Your task to perform on an android device: toggle javascript in the chrome app Image 0: 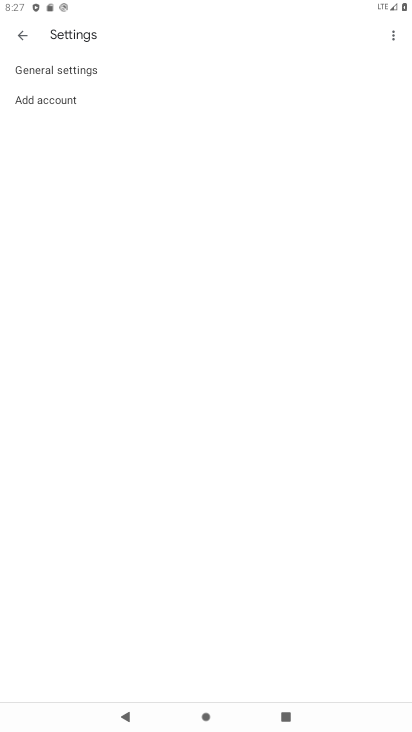
Step 0: press home button
Your task to perform on an android device: toggle javascript in the chrome app Image 1: 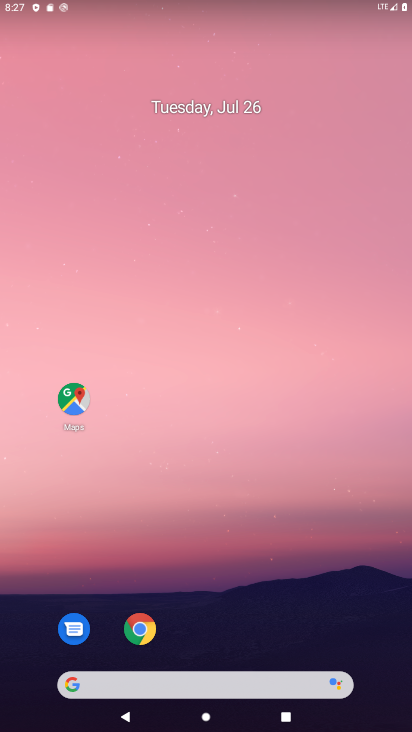
Step 1: drag from (210, 629) to (105, 545)
Your task to perform on an android device: toggle javascript in the chrome app Image 2: 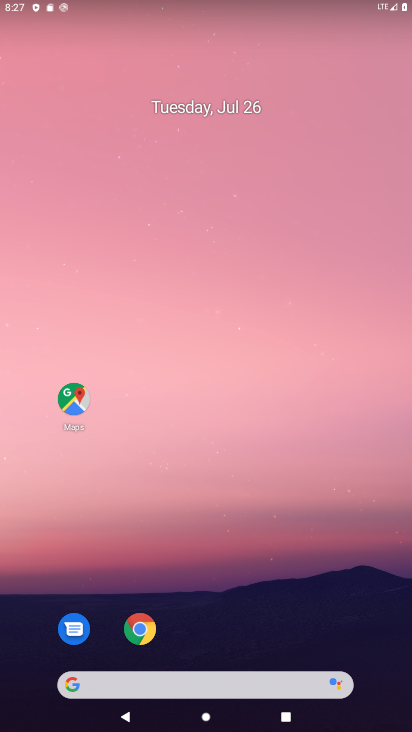
Step 2: click (136, 632)
Your task to perform on an android device: toggle javascript in the chrome app Image 3: 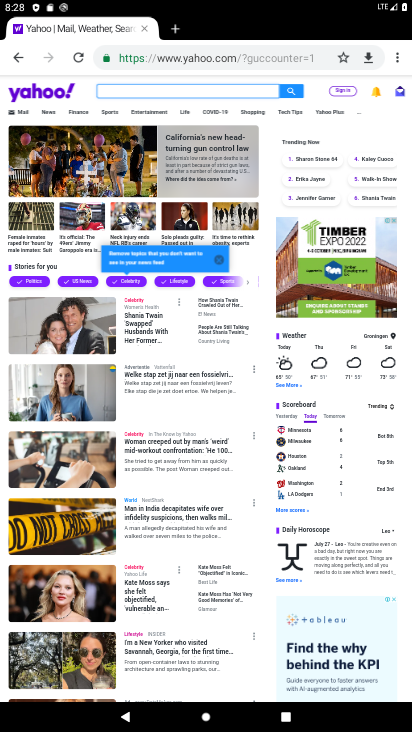
Step 3: drag from (398, 56) to (272, 377)
Your task to perform on an android device: toggle javascript in the chrome app Image 4: 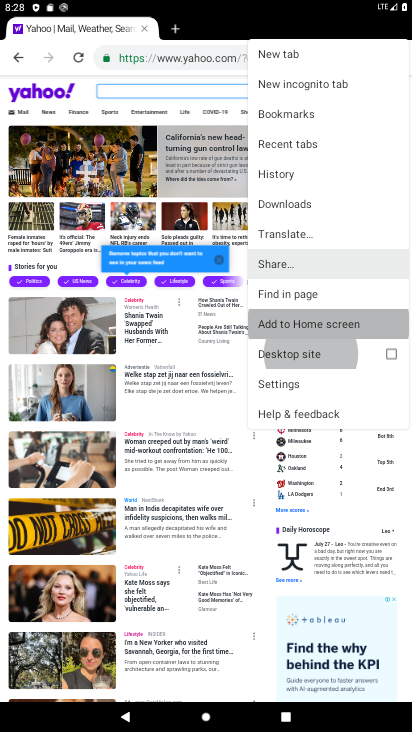
Step 4: click (266, 384)
Your task to perform on an android device: toggle javascript in the chrome app Image 5: 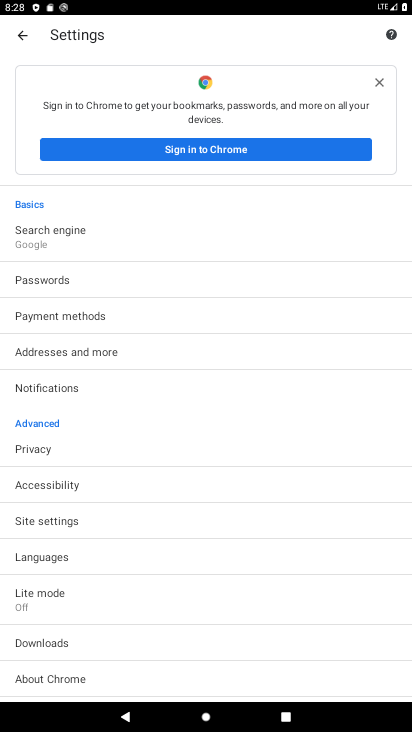
Step 5: click (46, 520)
Your task to perform on an android device: toggle javascript in the chrome app Image 6: 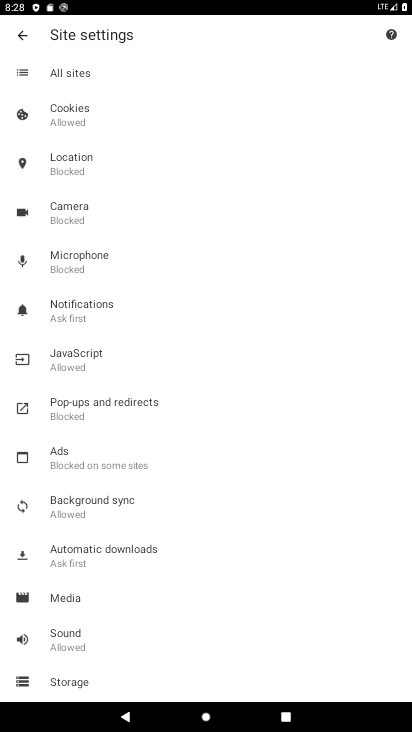
Step 6: click (79, 345)
Your task to perform on an android device: toggle javascript in the chrome app Image 7: 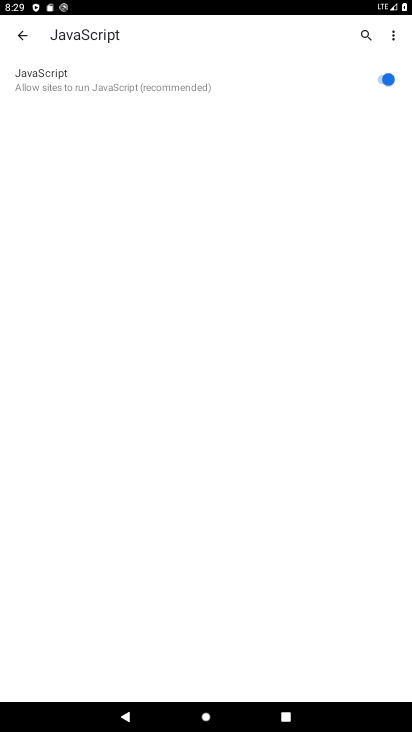
Step 7: click (385, 85)
Your task to perform on an android device: toggle javascript in the chrome app Image 8: 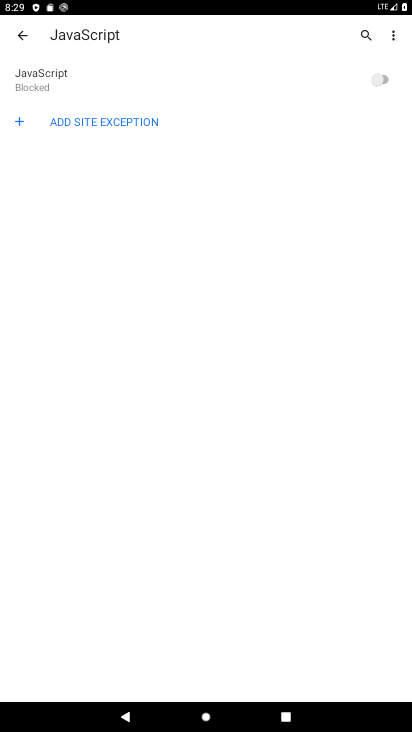
Step 8: task complete